Your task to perform on an android device: Show the shopping cart on amazon. Add sony triple a to the cart on amazon Image 0: 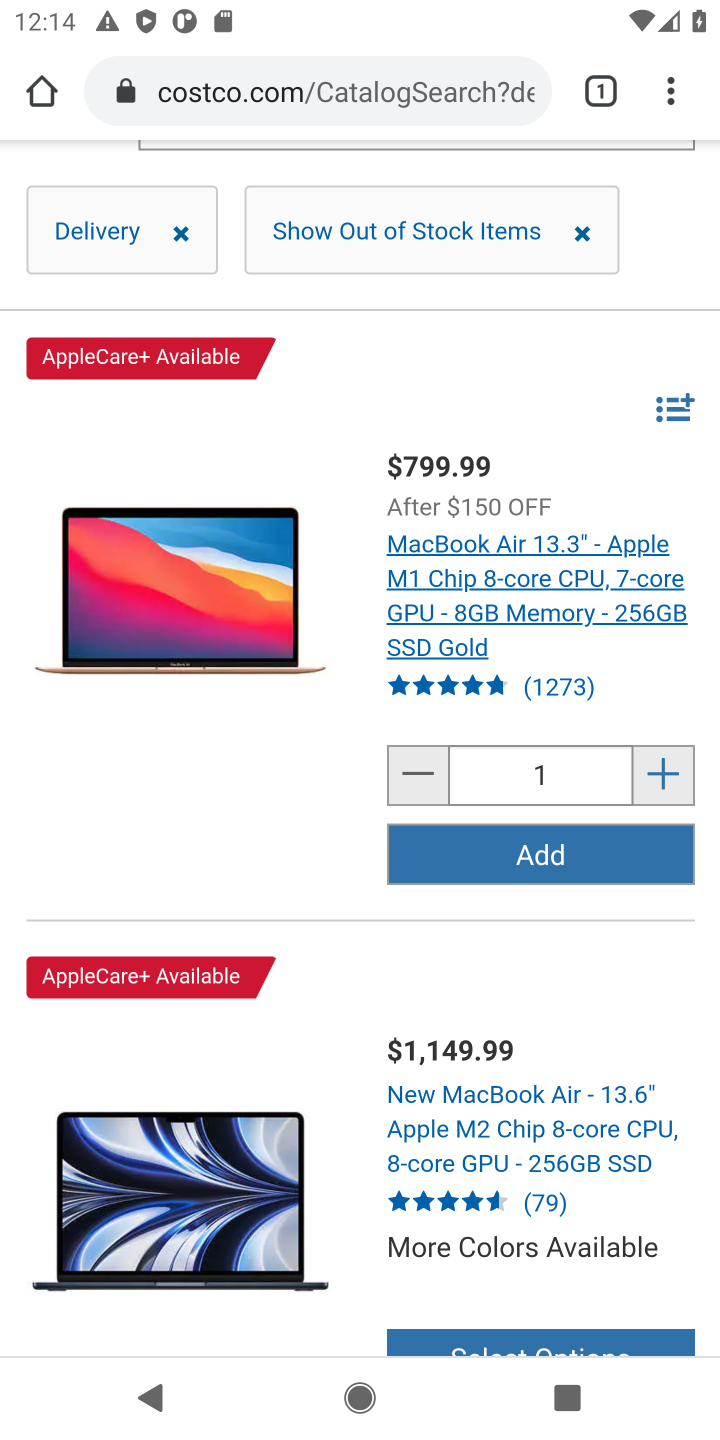
Step 0: press home button
Your task to perform on an android device: Show the shopping cart on amazon. Add sony triple a to the cart on amazon Image 1: 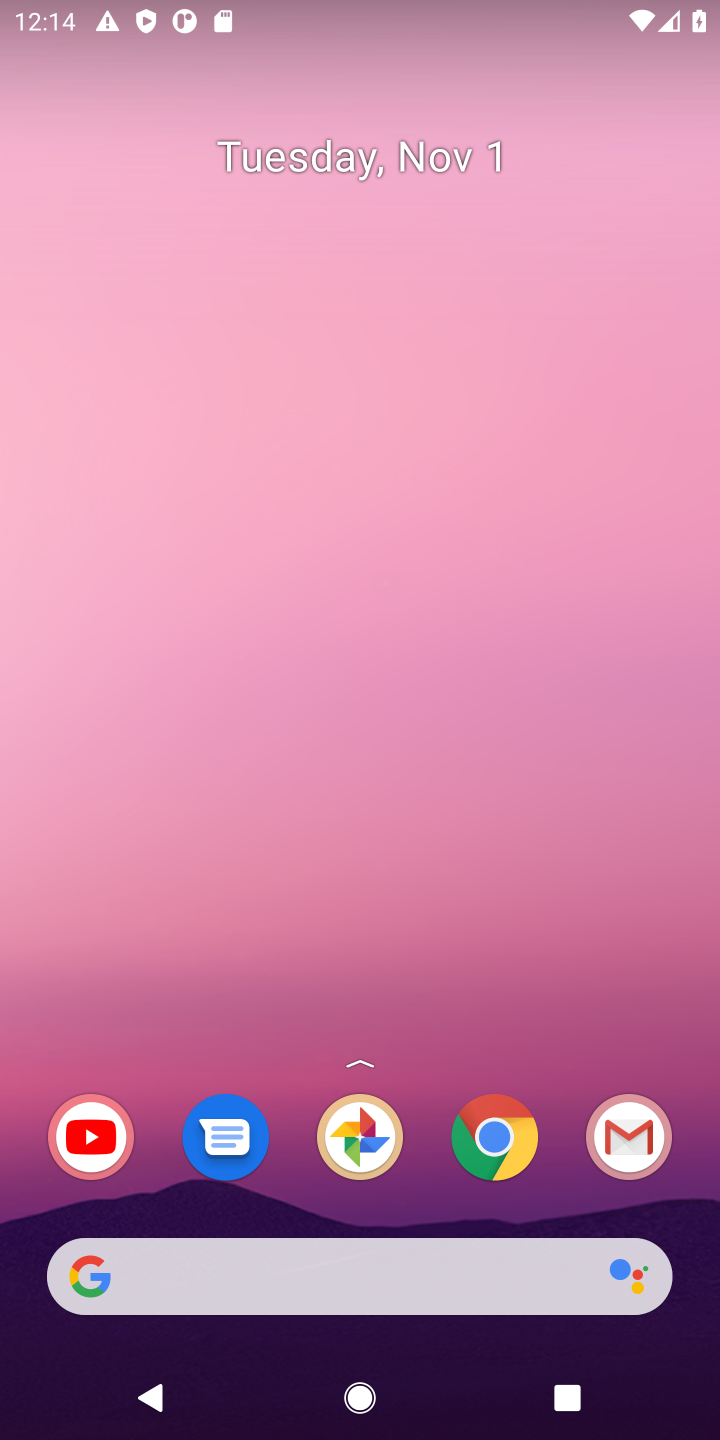
Step 1: click (493, 1137)
Your task to perform on an android device: Show the shopping cart on amazon. Add sony triple a to the cart on amazon Image 2: 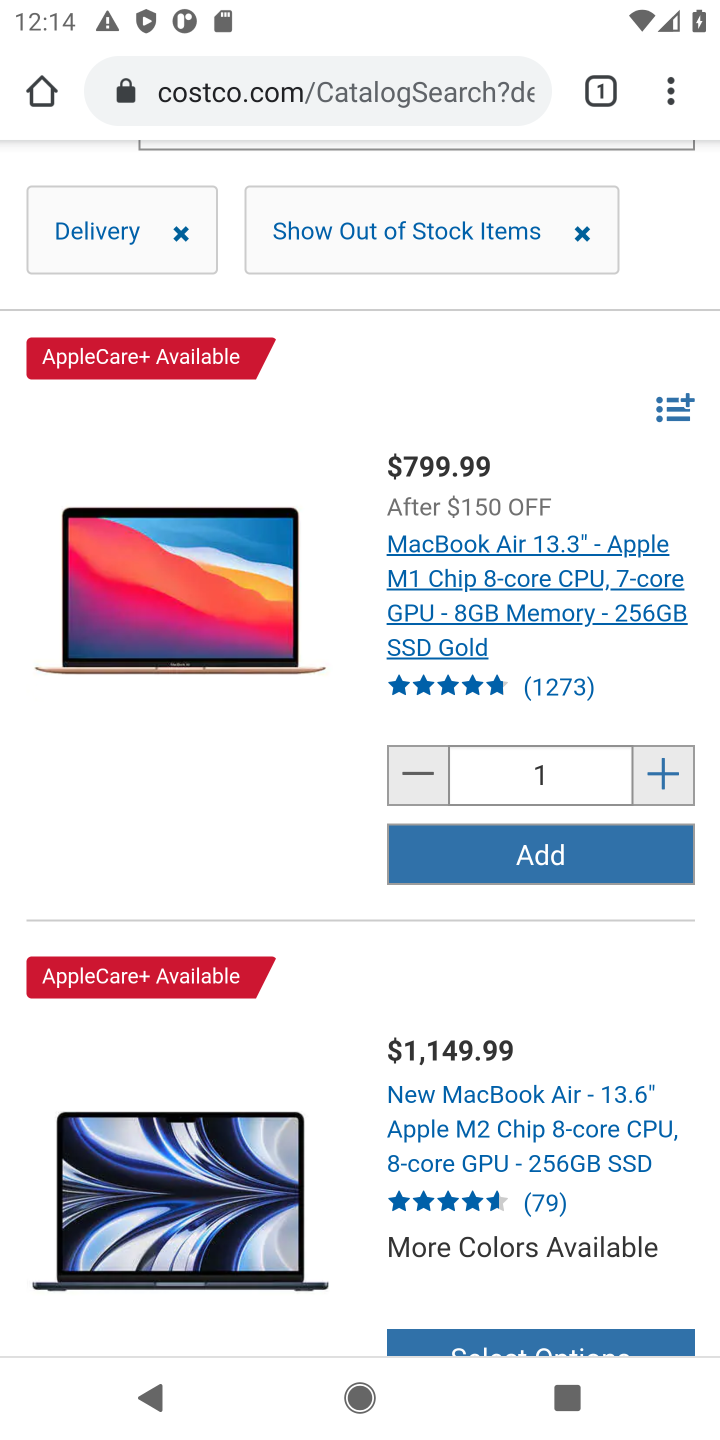
Step 2: click (405, 100)
Your task to perform on an android device: Show the shopping cart on amazon. Add sony triple a to the cart on amazon Image 3: 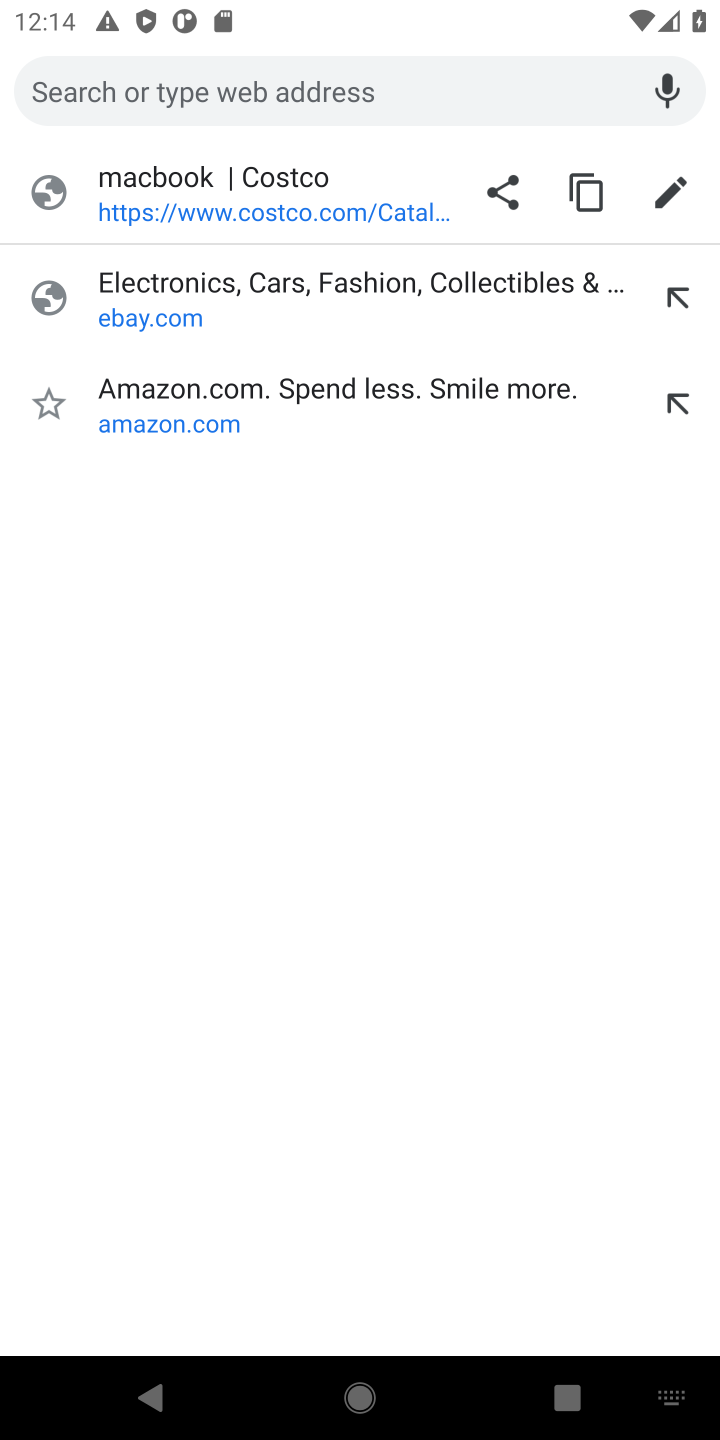
Step 3: type "amazon"
Your task to perform on an android device: Show the shopping cart on amazon. Add sony triple a to the cart on amazon Image 4: 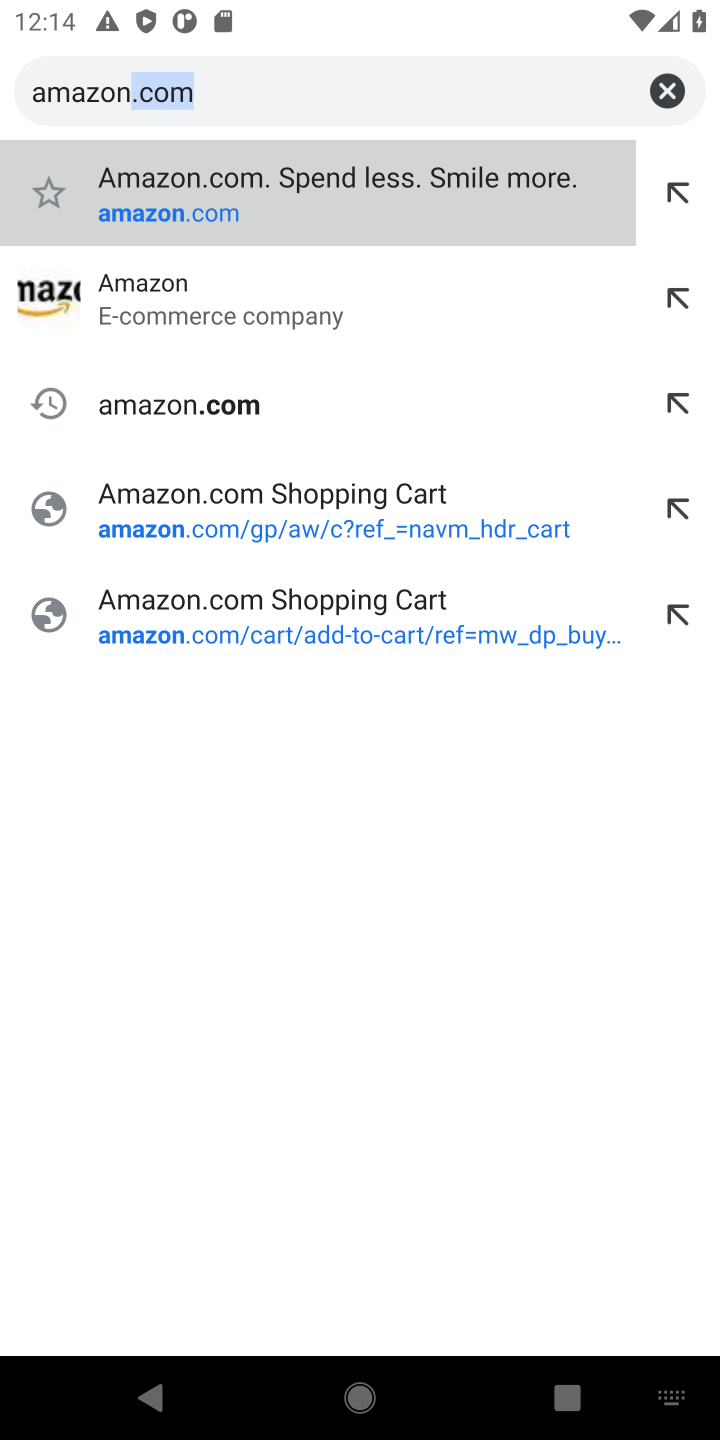
Step 4: click (188, 306)
Your task to perform on an android device: Show the shopping cart on amazon. Add sony triple a to the cart on amazon Image 5: 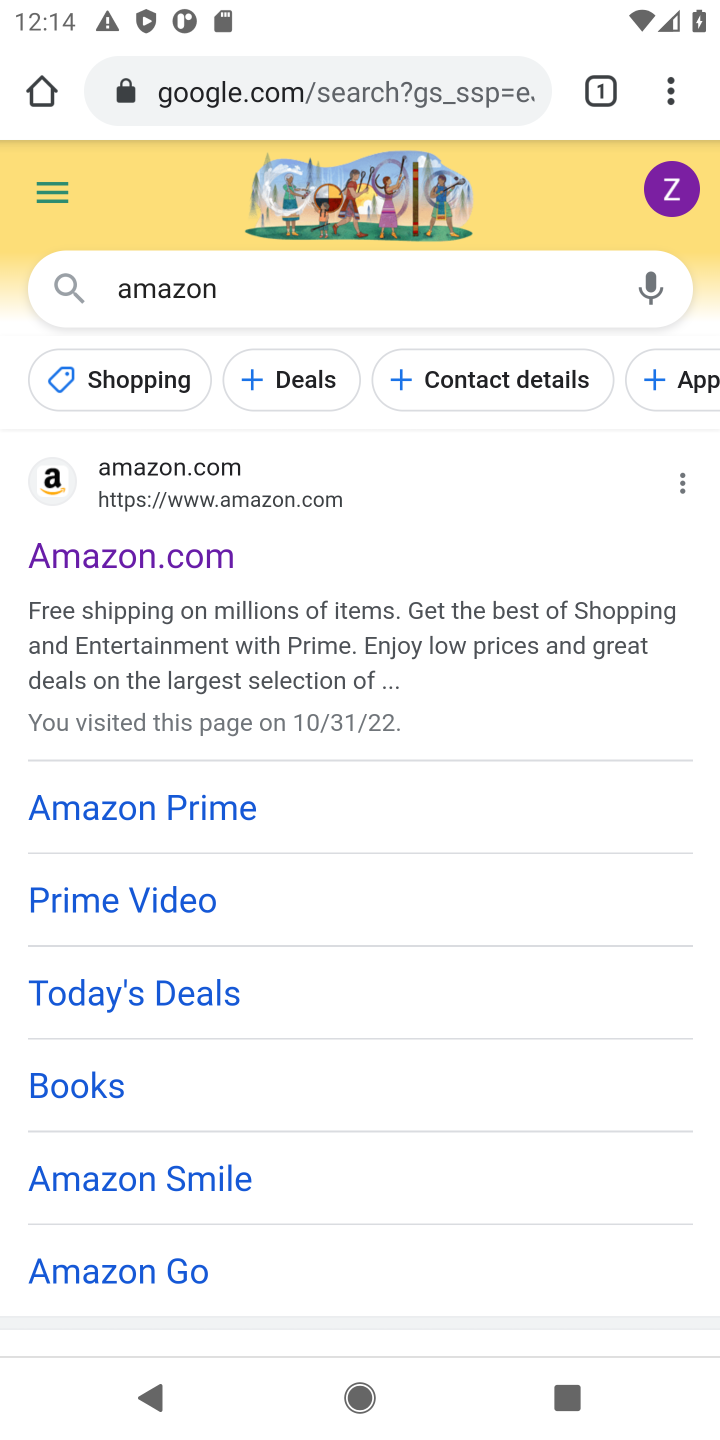
Step 5: click (121, 572)
Your task to perform on an android device: Show the shopping cart on amazon. Add sony triple a to the cart on amazon Image 6: 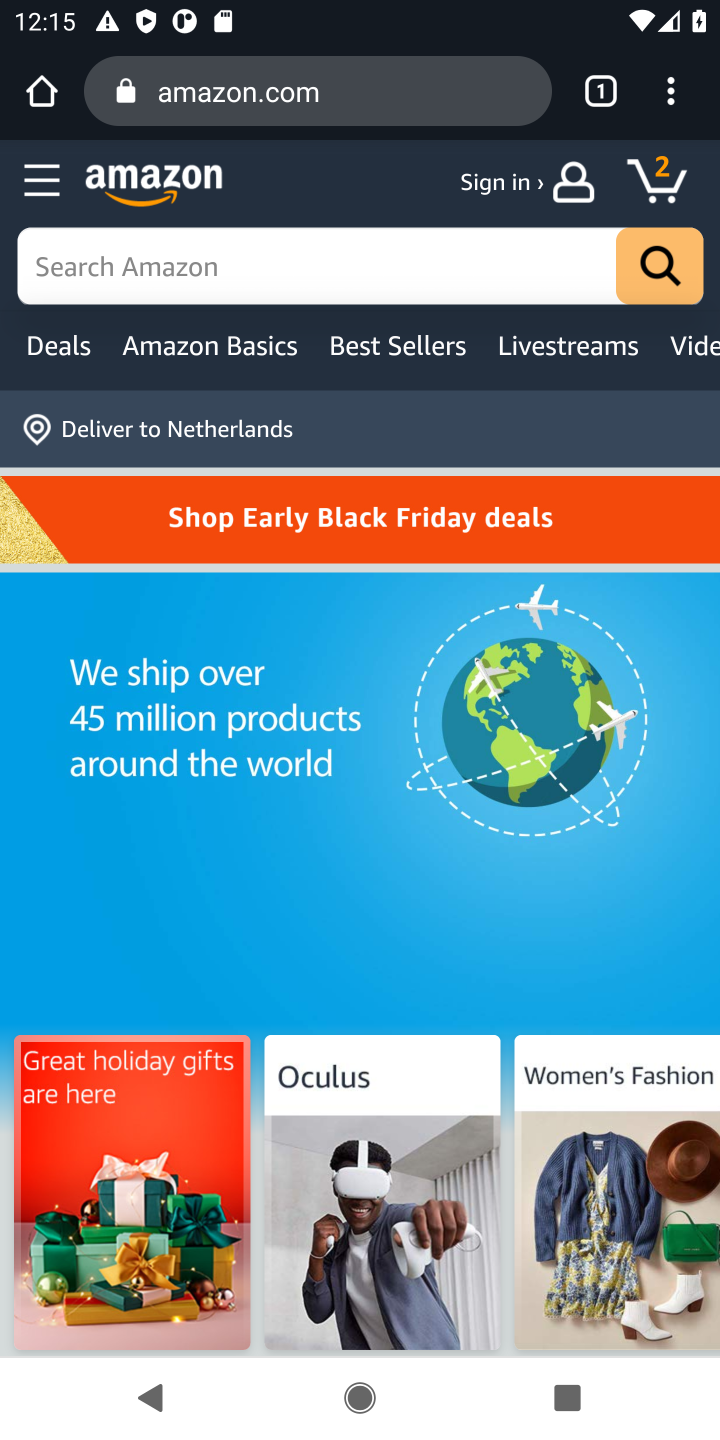
Step 6: click (664, 186)
Your task to perform on an android device: Show the shopping cart on amazon. Add sony triple a to the cart on amazon Image 7: 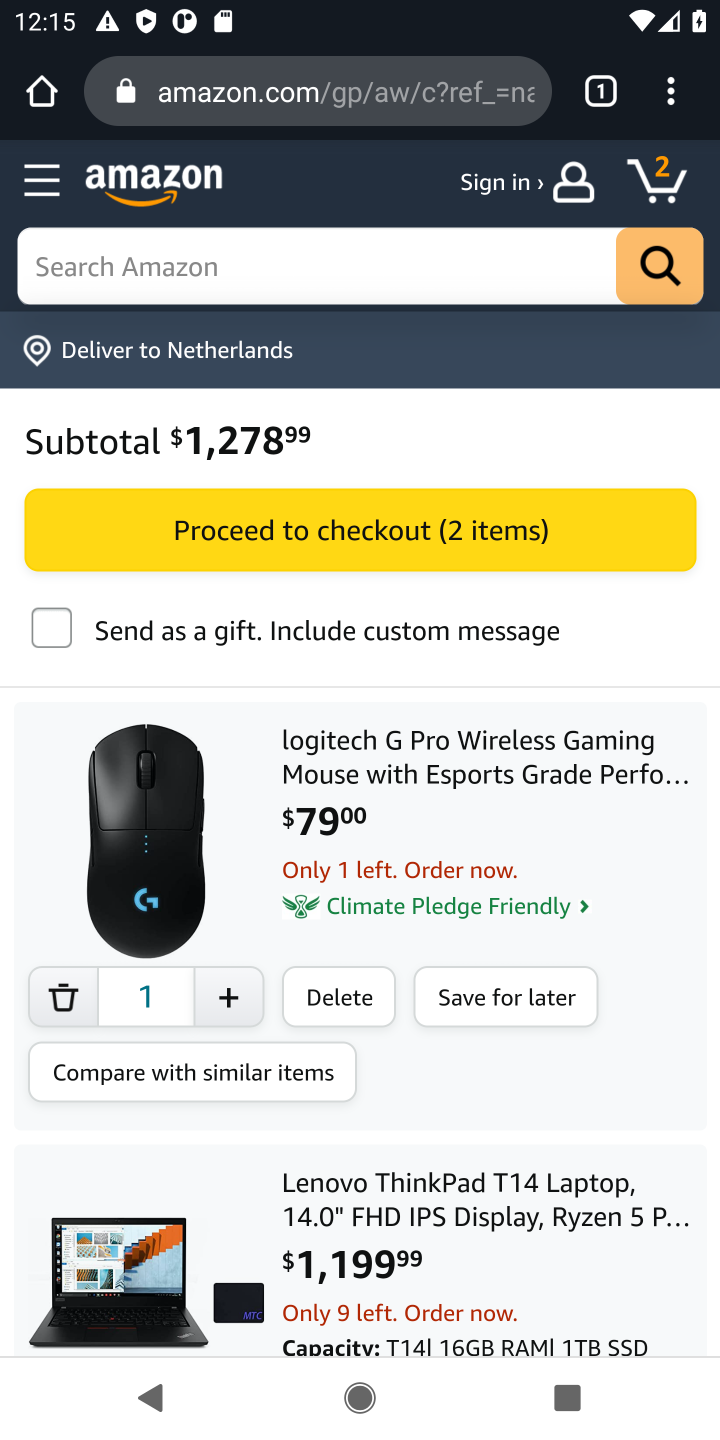
Step 7: click (443, 266)
Your task to perform on an android device: Show the shopping cart on amazon. Add sony triple a to the cart on amazon Image 8: 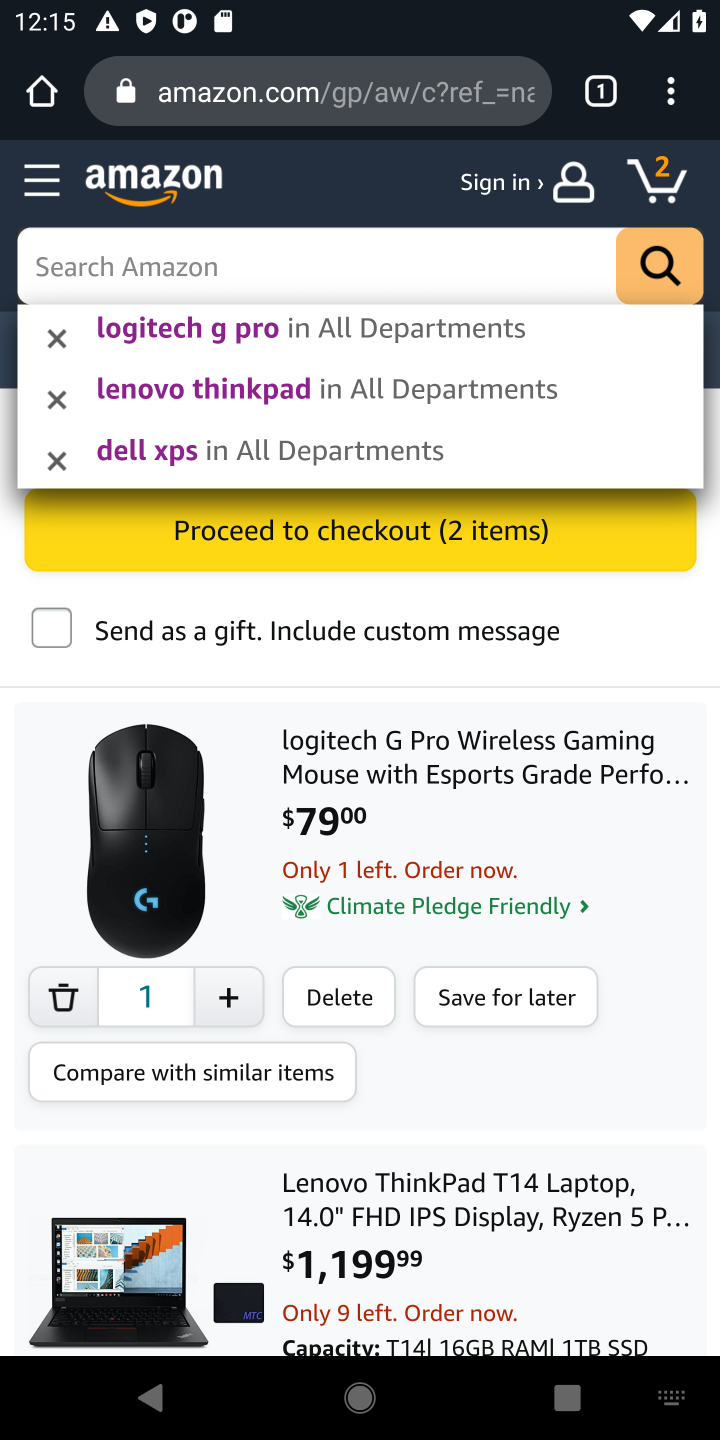
Step 8: type "sony triple a"
Your task to perform on an android device: Show the shopping cart on amazon. Add sony triple a to the cart on amazon Image 9: 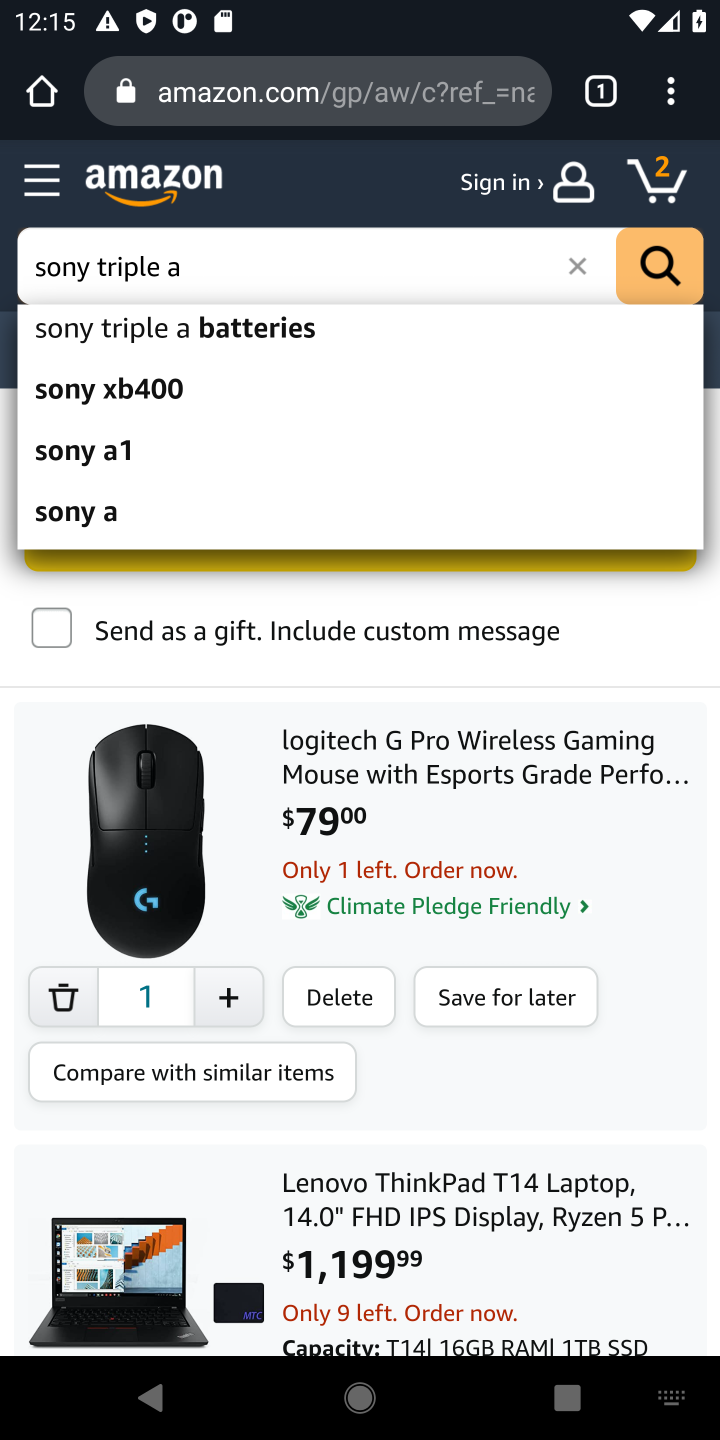
Step 9: click (656, 271)
Your task to perform on an android device: Show the shopping cart on amazon. Add sony triple a to the cart on amazon Image 10: 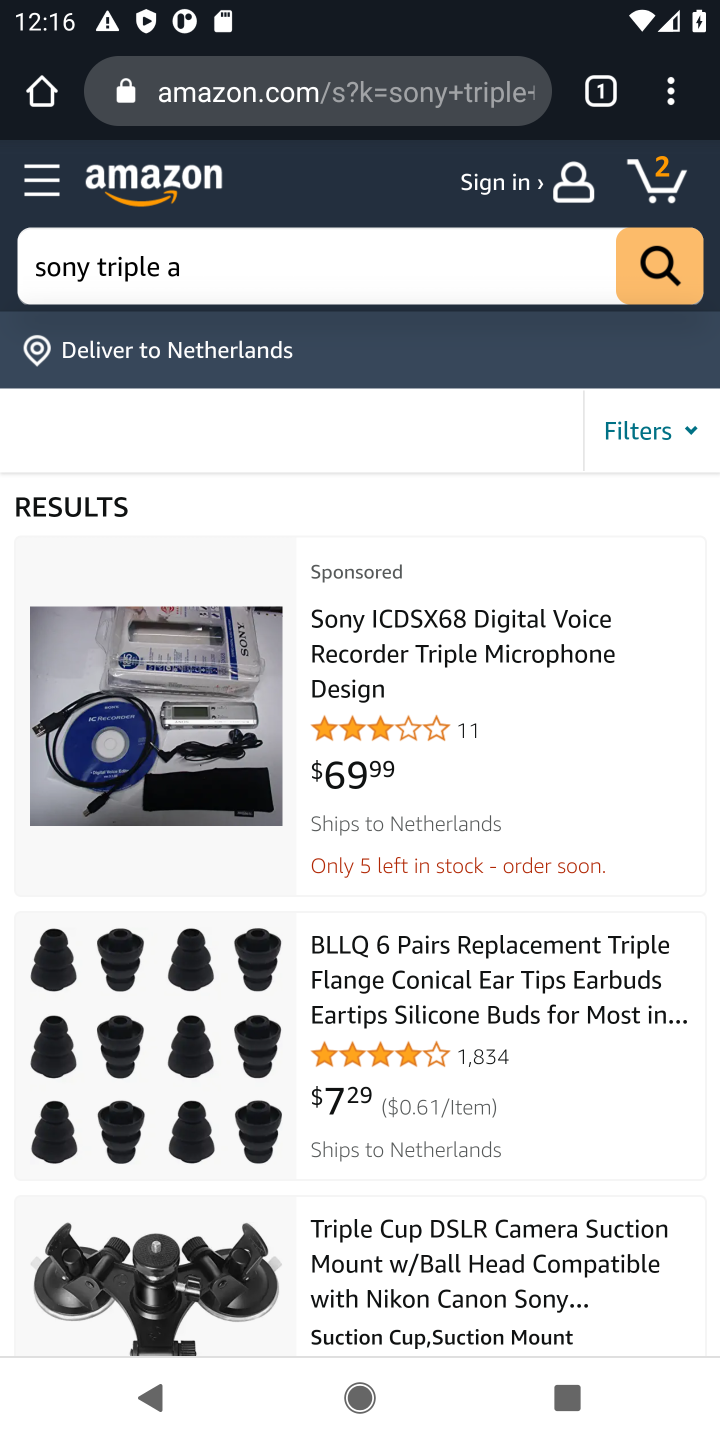
Step 10: drag from (393, 1170) to (440, 1047)
Your task to perform on an android device: Show the shopping cart on amazon. Add sony triple a to the cart on amazon Image 11: 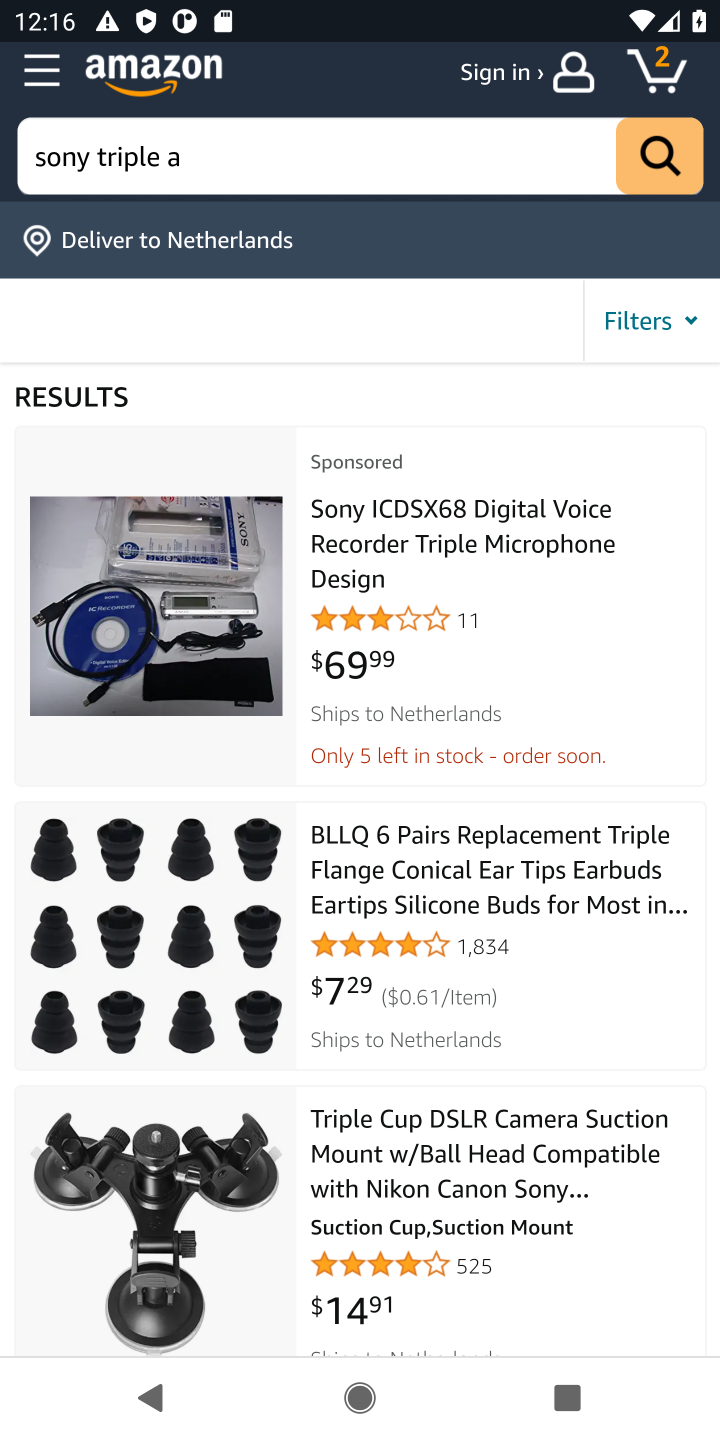
Step 11: drag from (375, 1193) to (510, 867)
Your task to perform on an android device: Show the shopping cart on amazon. Add sony triple a to the cart on amazon Image 12: 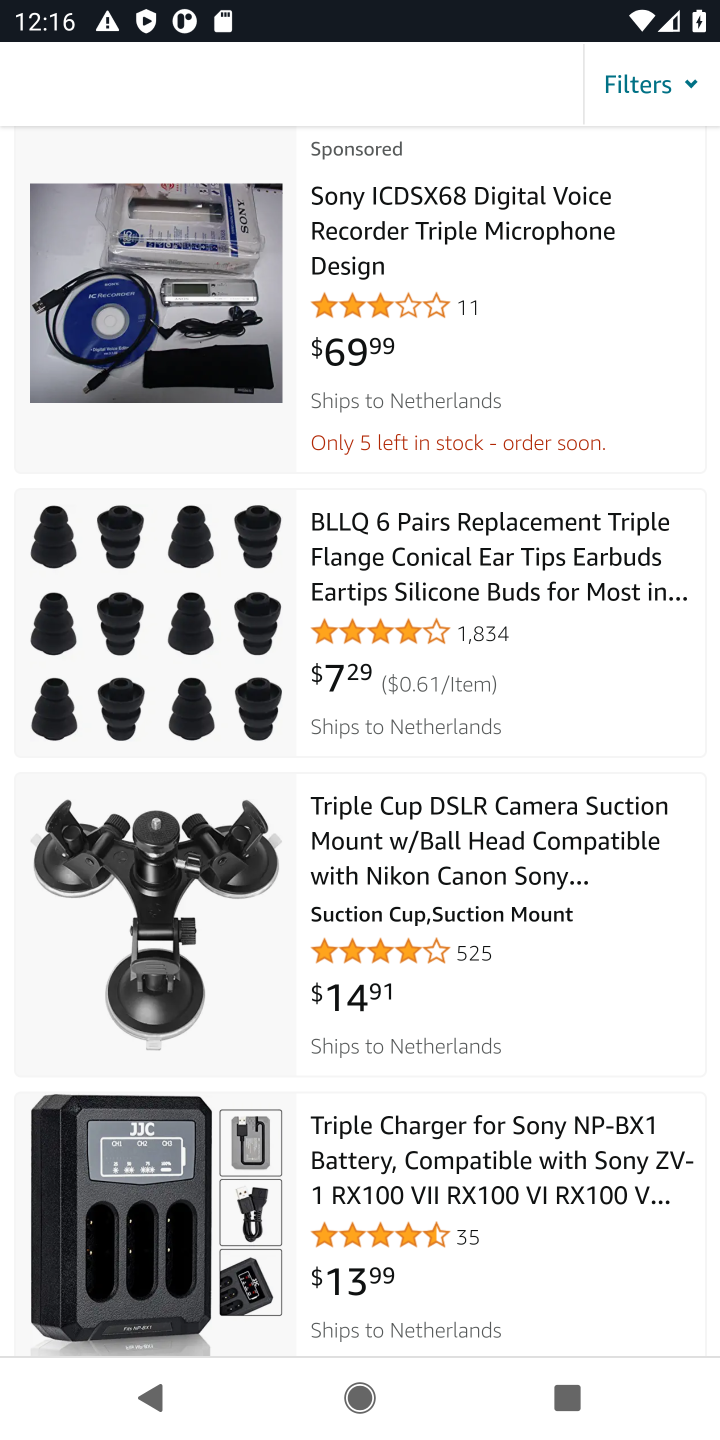
Step 12: drag from (521, 546) to (439, 1170)
Your task to perform on an android device: Show the shopping cart on amazon. Add sony triple a to the cart on amazon Image 13: 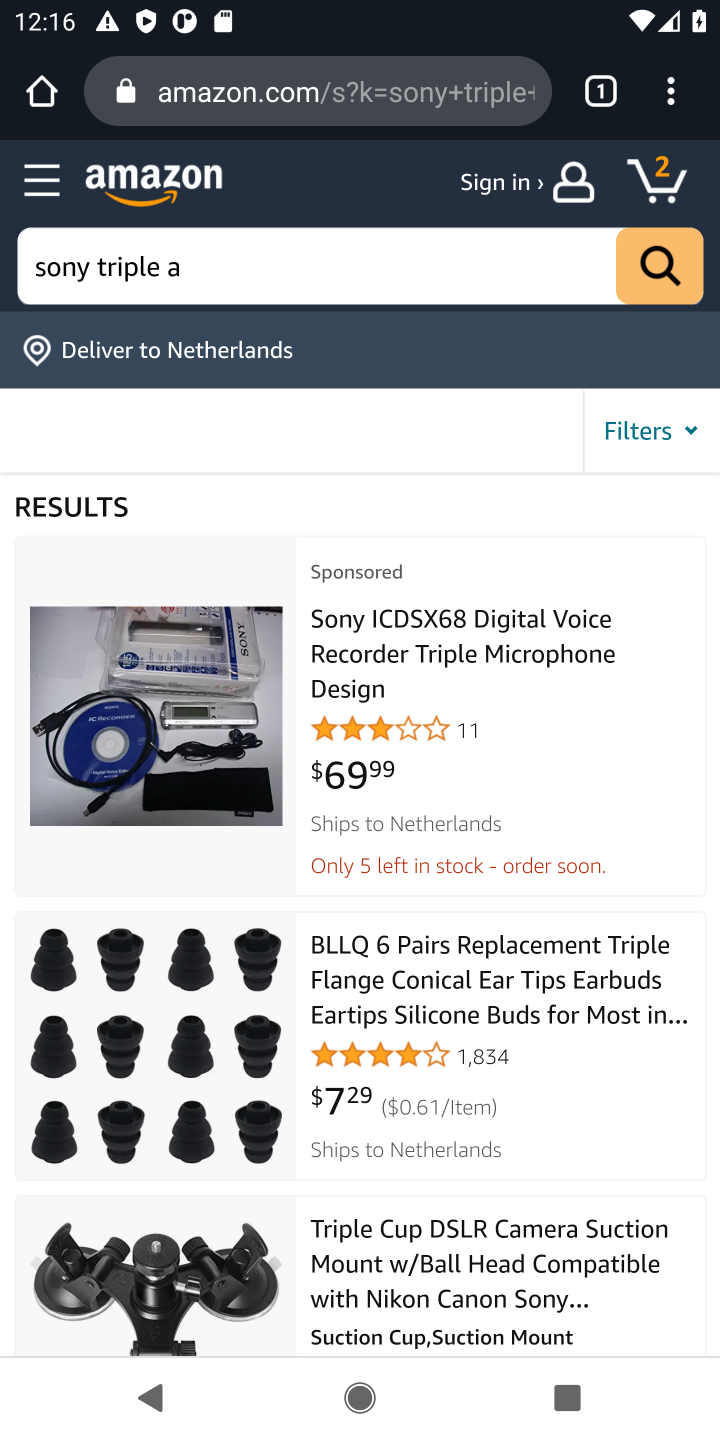
Step 13: click (514, 655)
Your task to perform on an android device: Show the shopping cart on amazon. Add sony triple a to the cart on amazon Image 14: 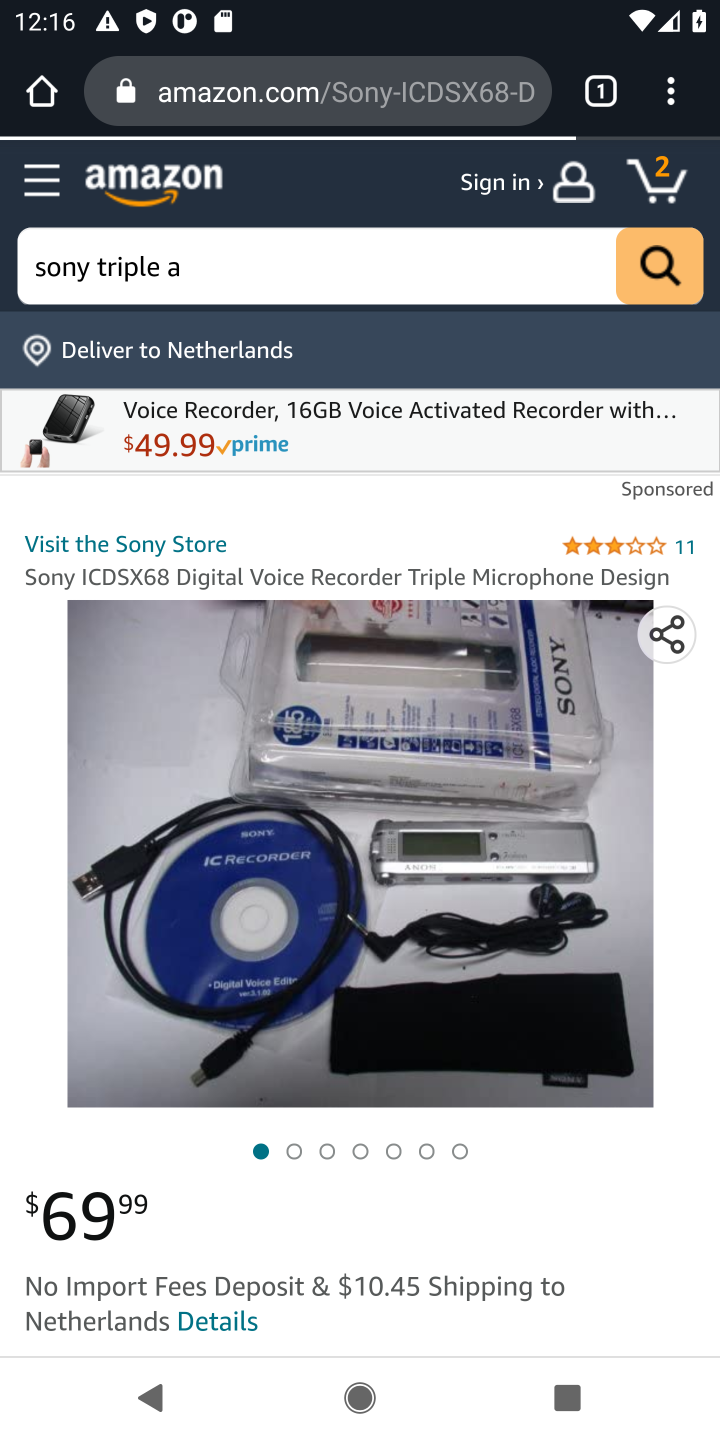
Step 14: drag from (422, 1072) to (571, 548)
Your task to perform on an android device: Show the shopping cart on amazon. Add sony triple a to the cart on amazon Image 15: 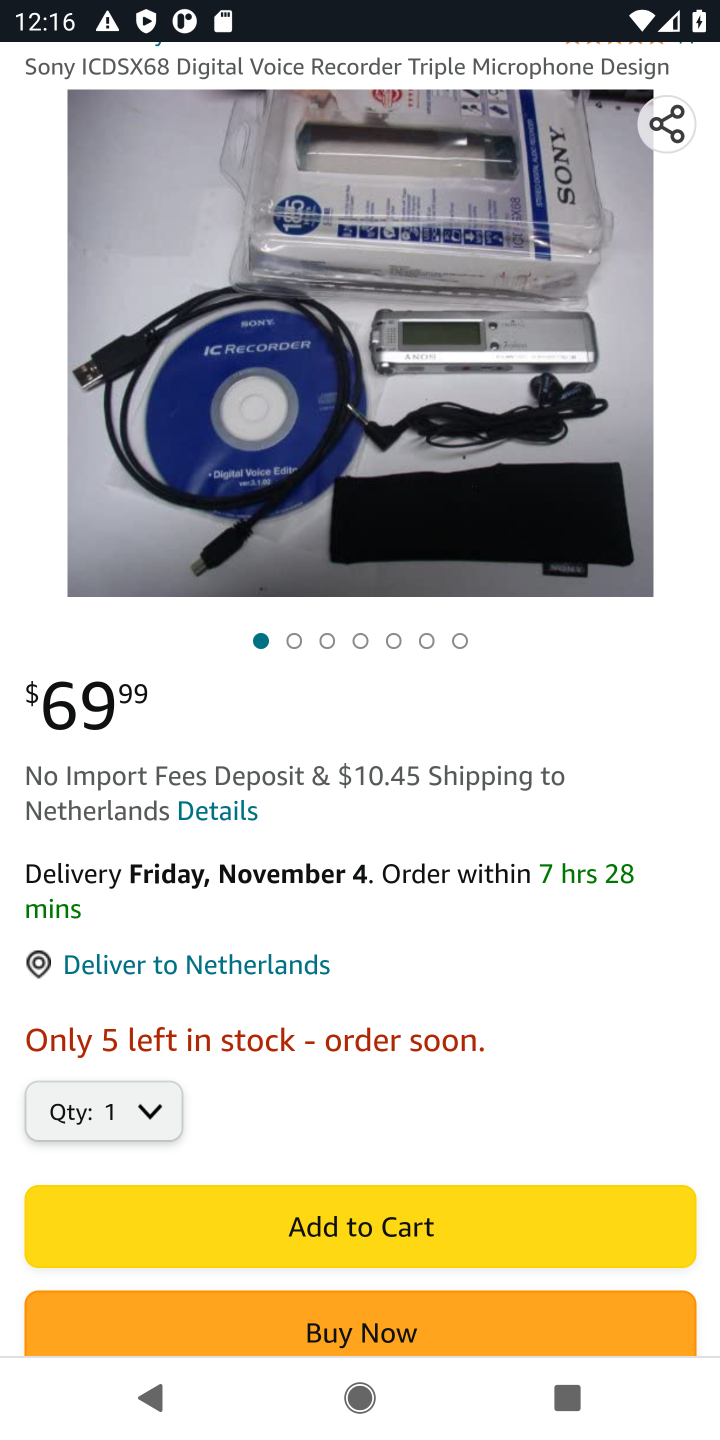
Step 15: click (286, 1207)
Your task to perform on an android device: Show the shopping cart on amazon. Add sony triple a to the cart on amazon Image 16: 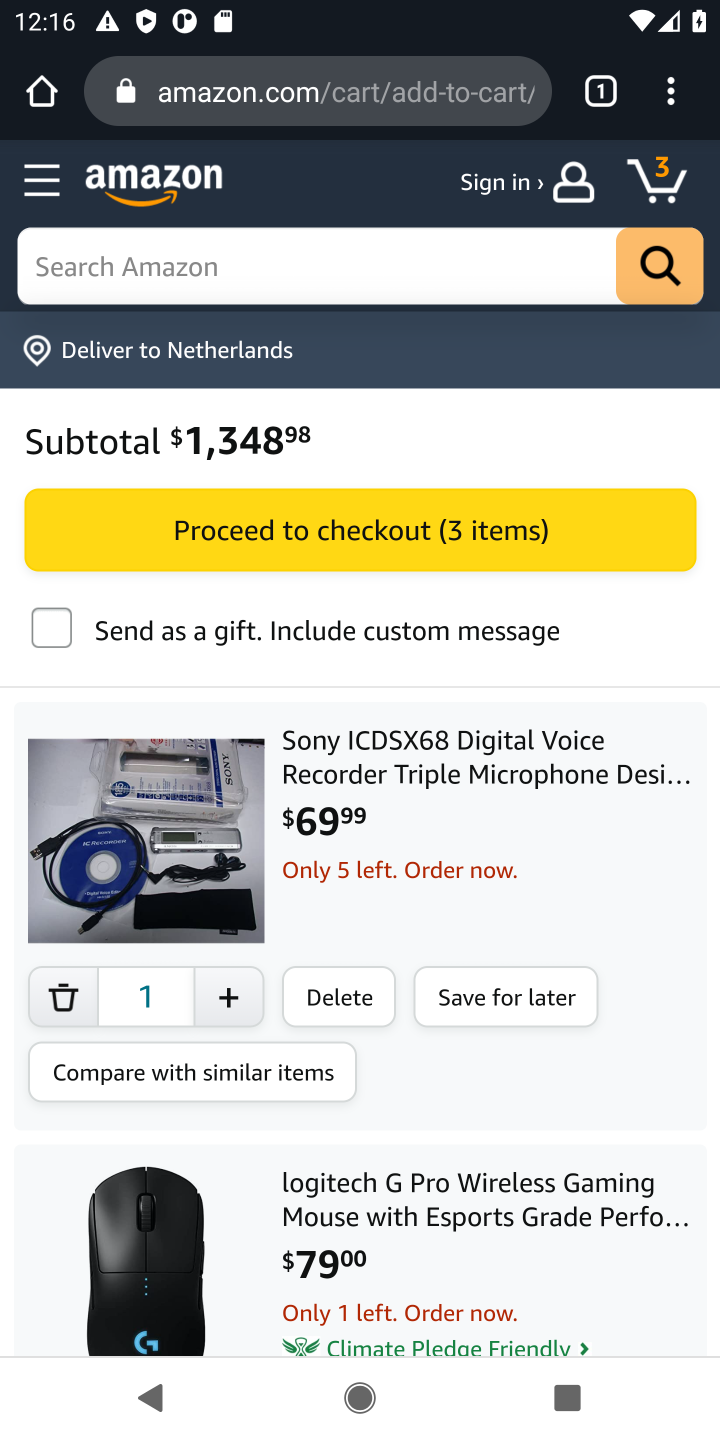
Step 16: task complete